Your task to perform on an android device: turn on notifications settings in the gmail app Image 0: 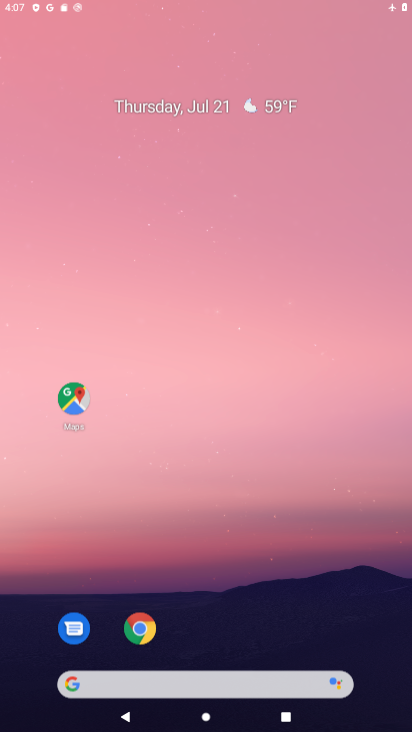
Step 0: click (171, 58)
Your task to perform on an android device: turn on notifications settings in the gmail app Image 1: 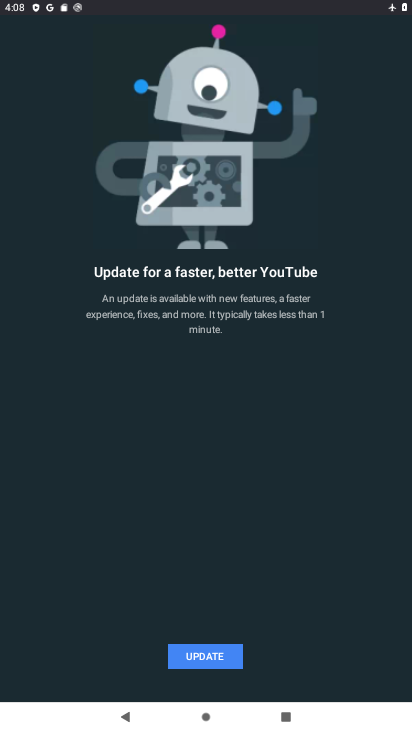
Step 1: press home button
Your task to perform on an android device: turn on notifications settings in the gmail app Image 2: 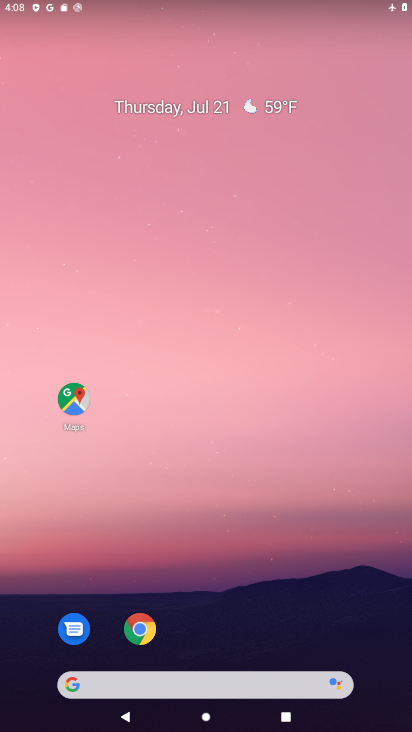
Step 2: drag from (228, 600) to (157, 0)
Your task to perform on an android device: turn on notifications settings in the gmail app Image 3: 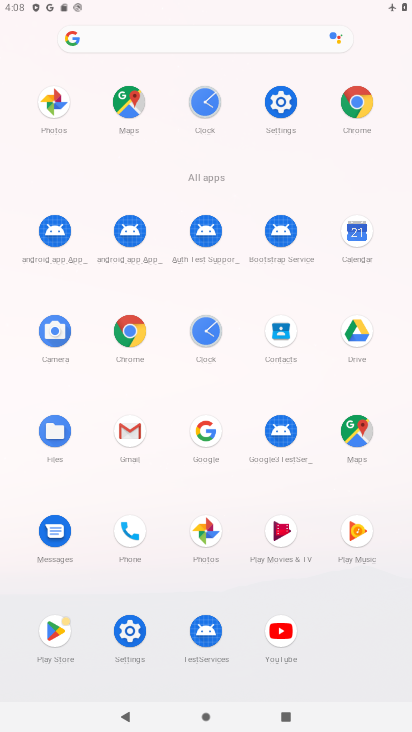
Step 3: click (131, 437)
Your task to perform on an android device: turn on notifications settings in the gmail app Image 4: 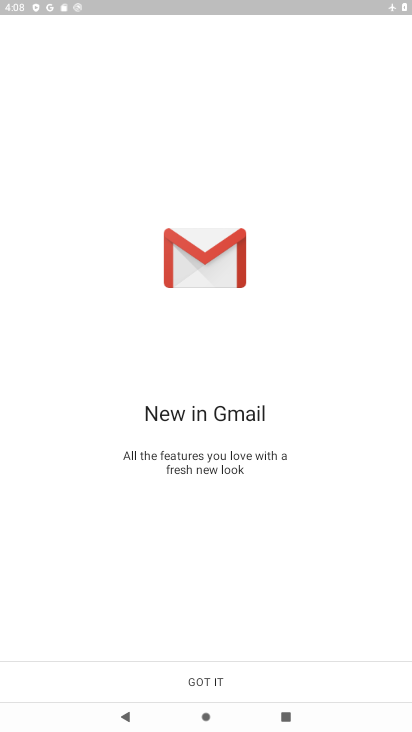
Step 4: click (204, 678)
Your task to perform on an android device: turn on notifications settings in the gmail app Image 5: 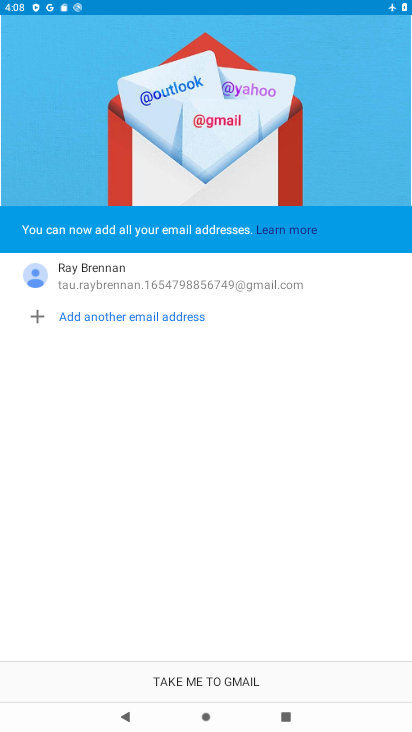
Step 5: click (228, 683)
Your task to perform on an android device: turn on notifications settings in the gmail app Image 6: 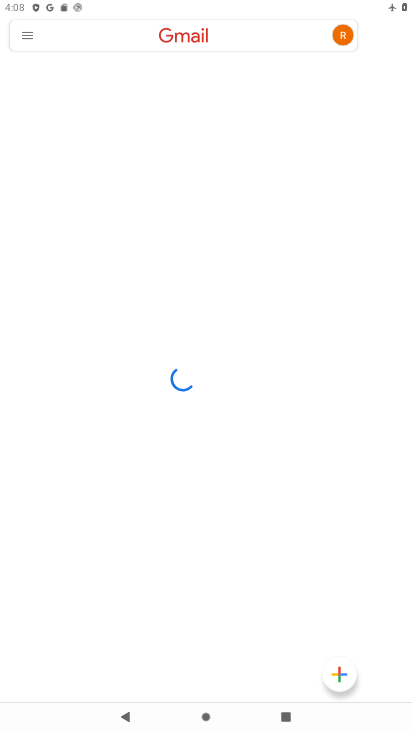
Step 6: click (25, 31)
Your task to perform on an android device: turn on notifications settings in the gmail app Image 7: 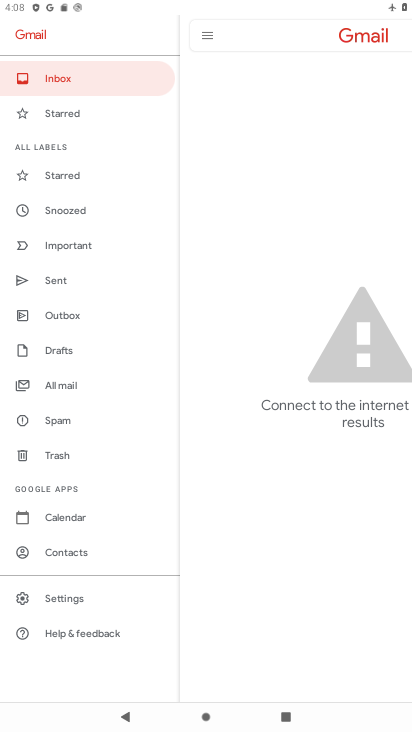
Step 7: click (77, 183)
Your task to perform on an android device: turn on notifications settings in the gmail app Image 8: 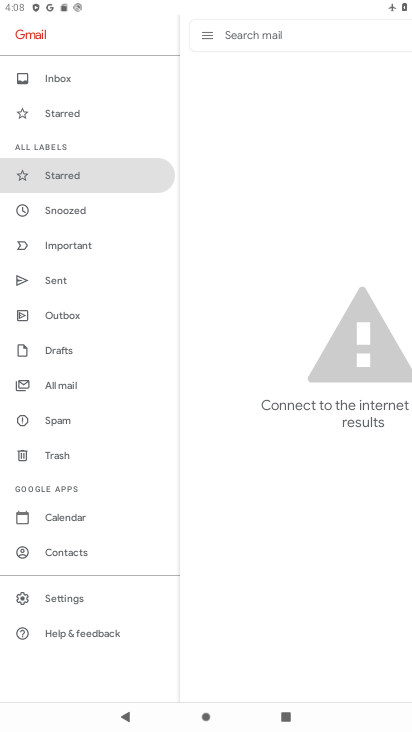
Step 8: click (66, 594)
Your task to perform on an android device: turn on notifications settings in the gmail app Image 9: 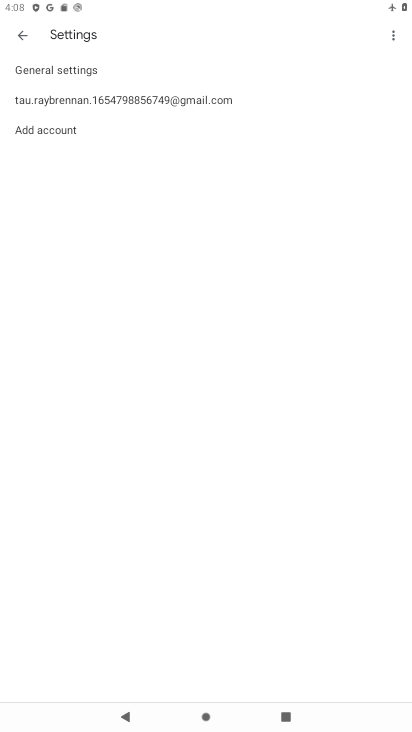
Step 9: click (65, 601)
Your task to perform on an android device: turn on notifications settings in the gmail app Image 10: 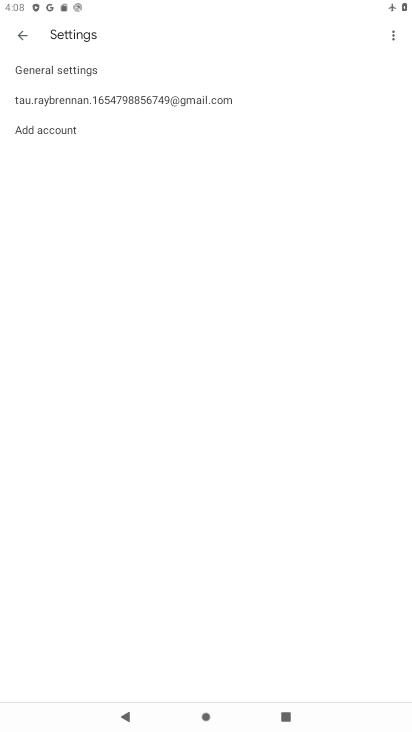
Step 10: click (64, 63)
Your task to perform on an android device: turn on notifications settings in the gmail app Image 11: 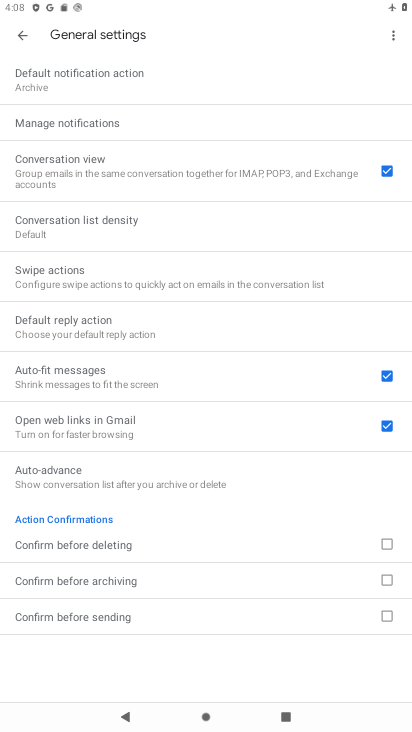
Step 11: click (76, 125)
Your task to perform on an android device: turn on notifications settings in the gmail app Image 12: 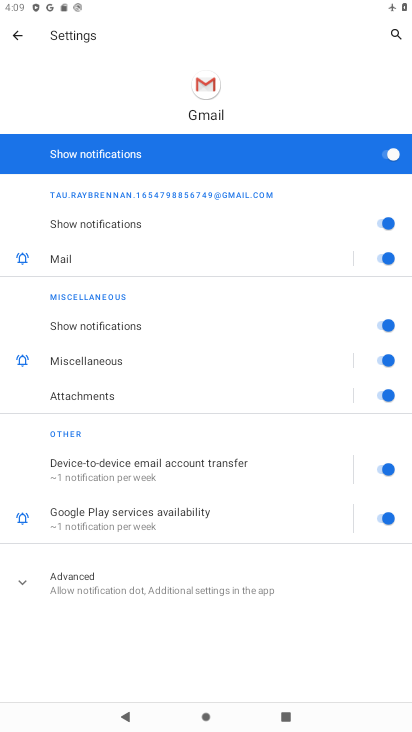
Step 12: task complete